Your task to perform on an android device: Play the last video I watched on Youtube Image 0: 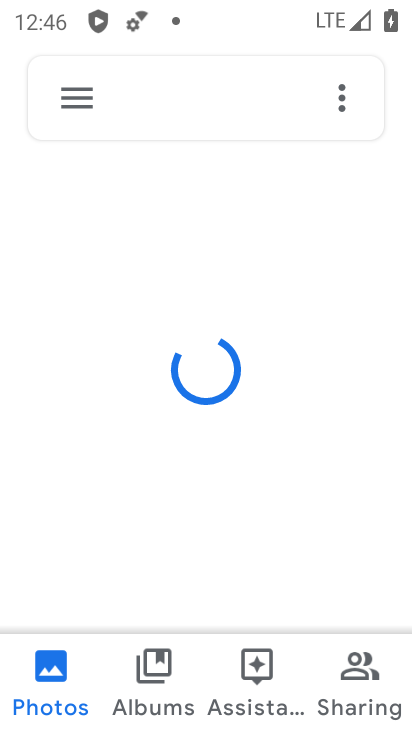
Step 0: press home button
Your task to perform on an android device: Play the last video I watched on Youtube Image 1: 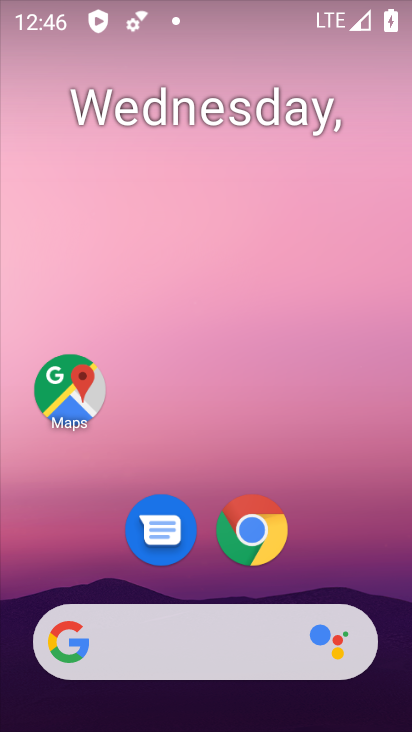
Step 1: drag from (369, 596) to (342, 239)
Your task to perform on an android device: Play the last video I watched on Youtube Image 2: 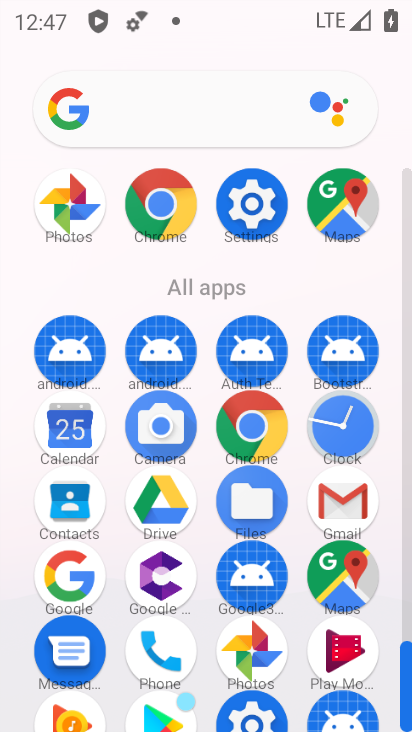
Step 2: drag from (137, 613) to (211, 190)
Your task to perform on an android device: Play the last video I watched on Youtube Image 3: 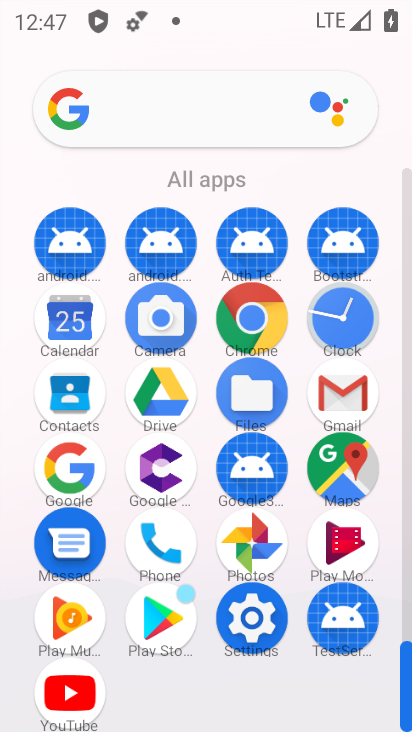
Step 3: click (73, 699)
Your task to perform on an android device: Play the last video I watched on Youtube Image 4: 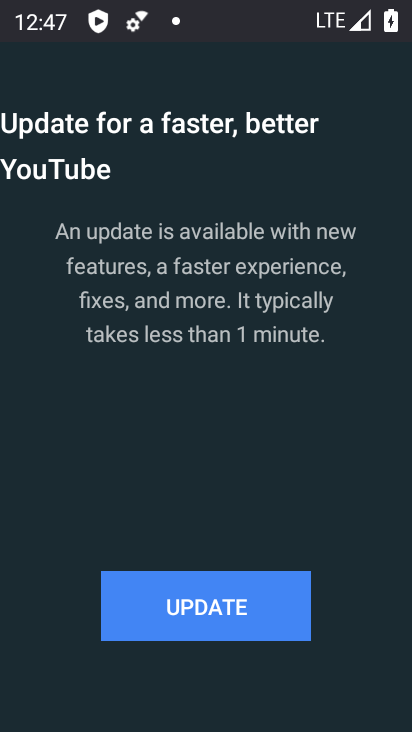
Step 4: click (201, 619)
Your task to perform on an android device: Play the last video I watched on Youtube Image 5: 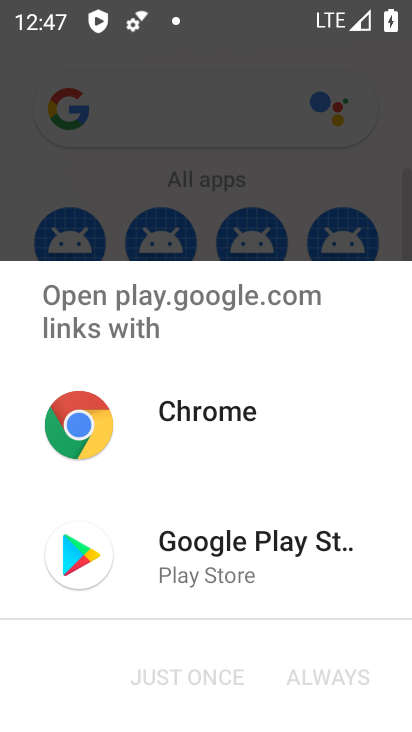
Step 5: click (244, 576)
Your task to perform on an android device: Play the last video I watched on Youtube Image 6: 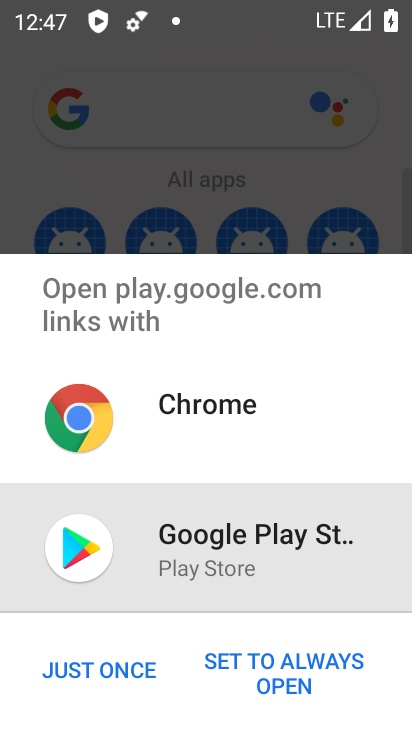
Step 6: click (137, 674)
Your task to perform on an android device: Play the last video I watched on Youtube Image 7: 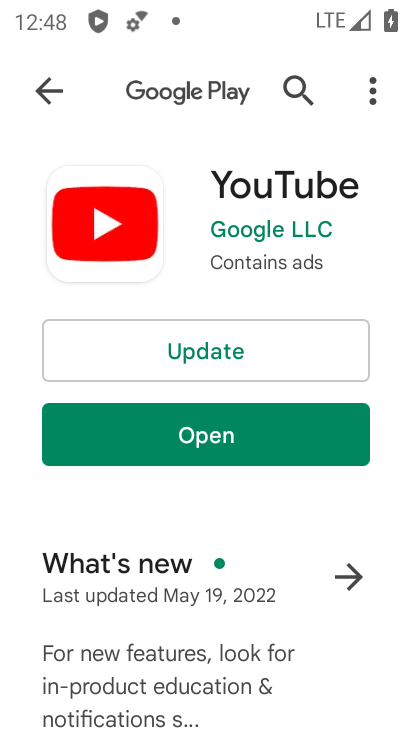
Step 7: click (274, 430)
Your task to perform on an android device: Play the last video I watched on Youtube Image 8: 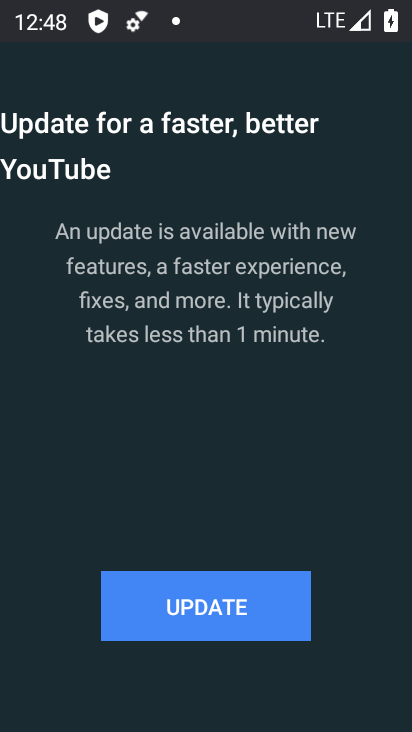
Step 8: click (244, 609)
Your task to perform on an android device: Play the last video I watched on Youtube Image 9: 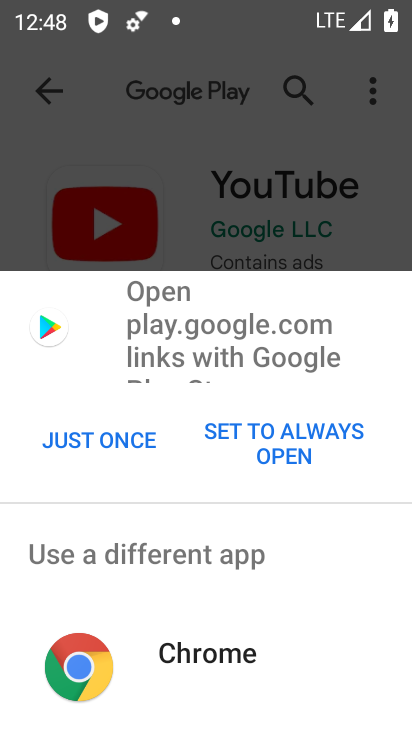
Step 9: click (126, 448)
Your task to perform on an android device: Play the last video I watched on Youtube Image 10: 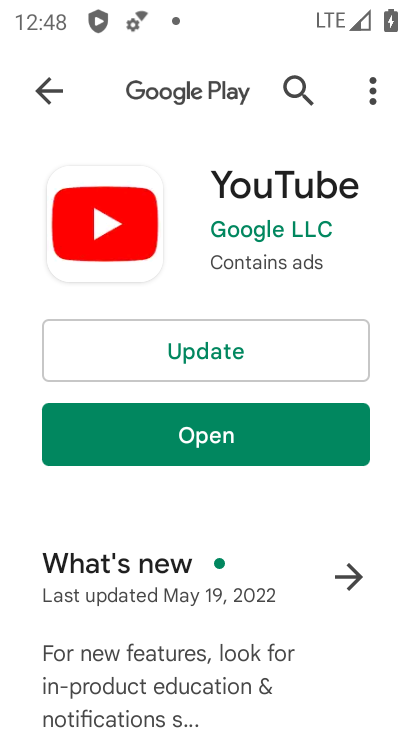
Step 10: click (248, 438)
Your task to perform on an android device: Play the last video I watched on Youtube Image 11: 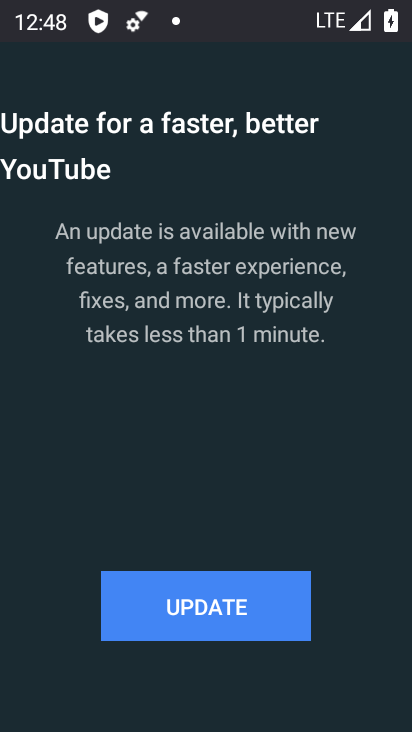
Step 11: click (224, 624)
Your task to perform on an android device: Play the last video I watched on Youtube Image 12: 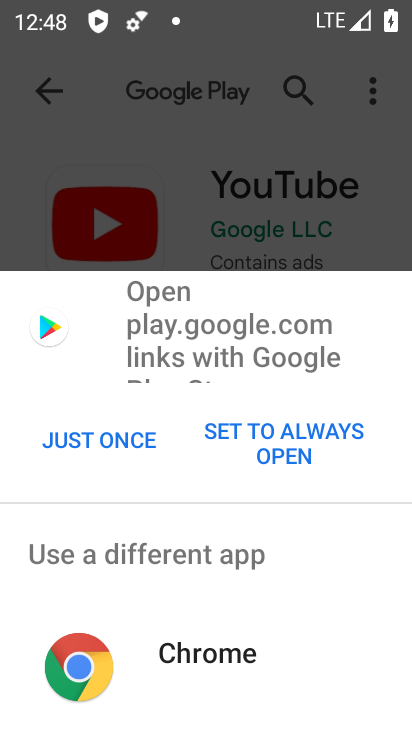
Step 12: click (116, 440)
Your task to perform on an android device: Play the last video I watched on Youtube Image 13: 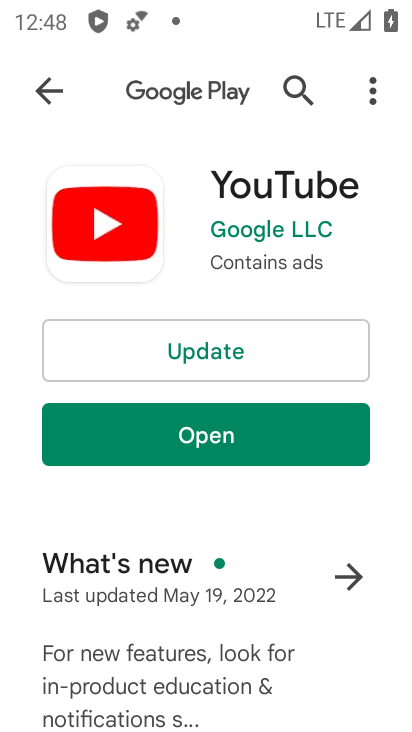
Step 13: click (237, 361)
Your task to perform on an android device: Play the last video I watched on Youtube Image 14: 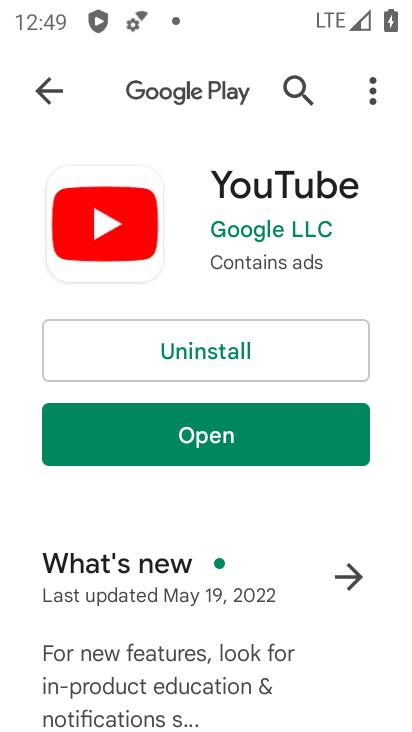
Step 14: click (226, 422)
Your task to perform on an android device: Play the last video I watched on Youtube Image 15: 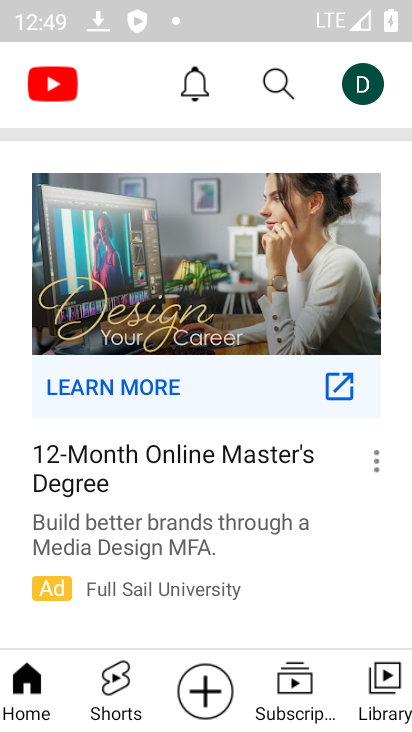
Step 15: click (354, 701)
Your task to perform on an android device: Play the last video I watched on Youtube Image 16: 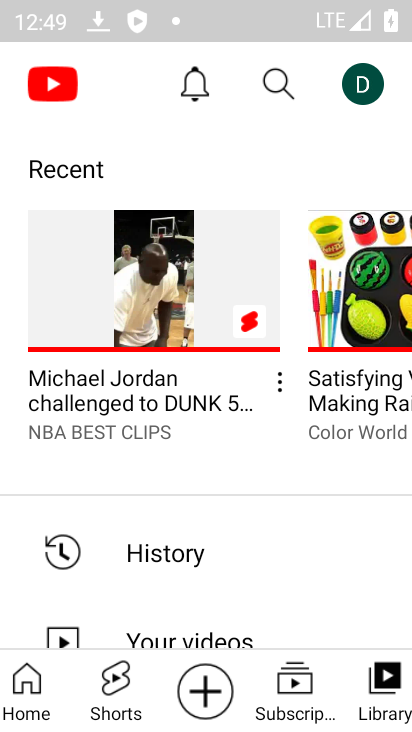
Step 16: task complete